Your task to perform on an android device: Play the last video I watched on Youtube Image 0: 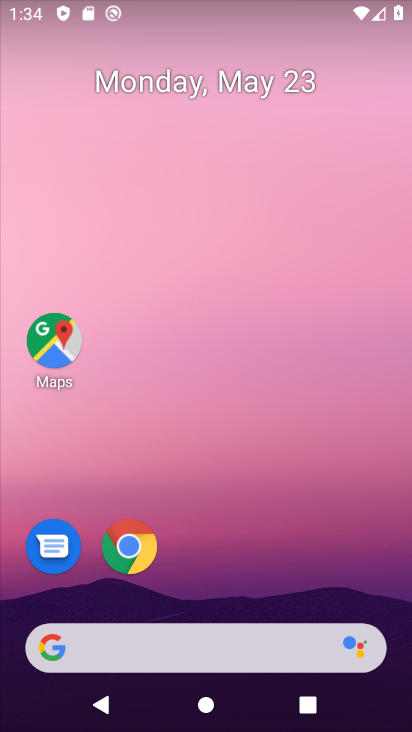
Step 0: click (258, 71)
Your task to perform on an android device: Play the last video I watched on Youtube Image 1: 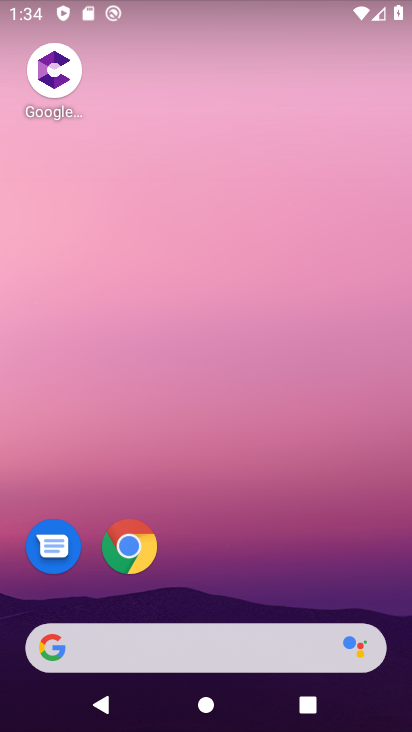
Step 1: drag from (222, 517) to (247, 145)
Your task to perform on an android device: Play the last video I watched on Youtube Image 2: 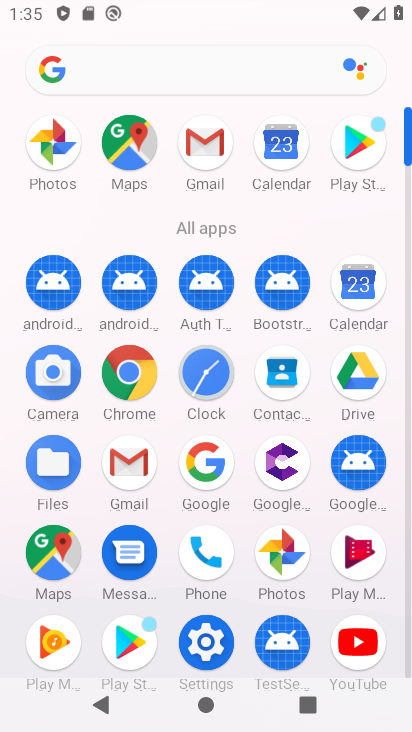
Step 2: click (355, 650)
Your task to perform on an android device: Play the last video I watched on Youtube Image 3: 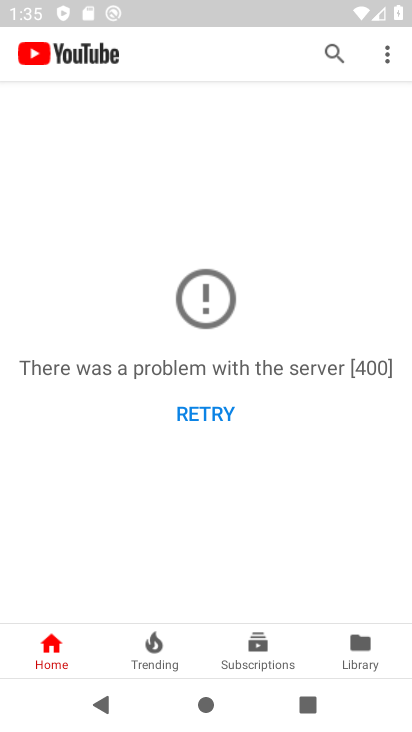
Step 3: click (354, 650)
Your task to perform on an android device: Play the last video I watched on Youtube Image 4: 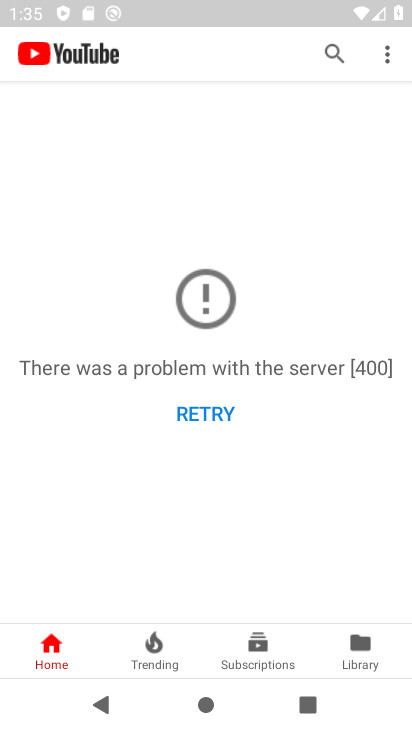
Step 4: click (364, 644)
Your task to perform on an android device: Play the last video I watched on Youtube Image 5: 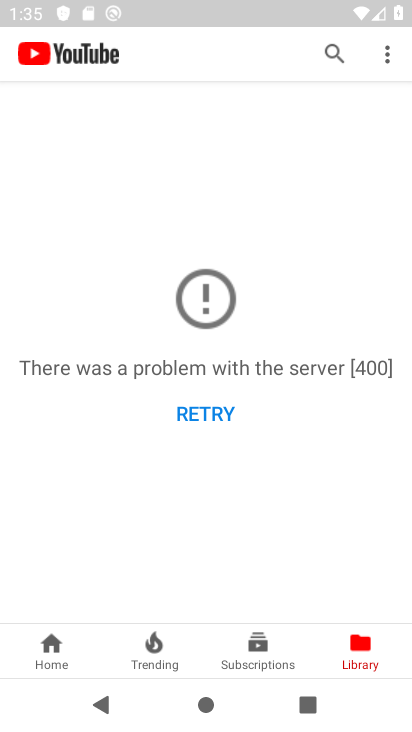
Step 5: task complete